Your task to perform on an android device: Go to Android settings Image 0: 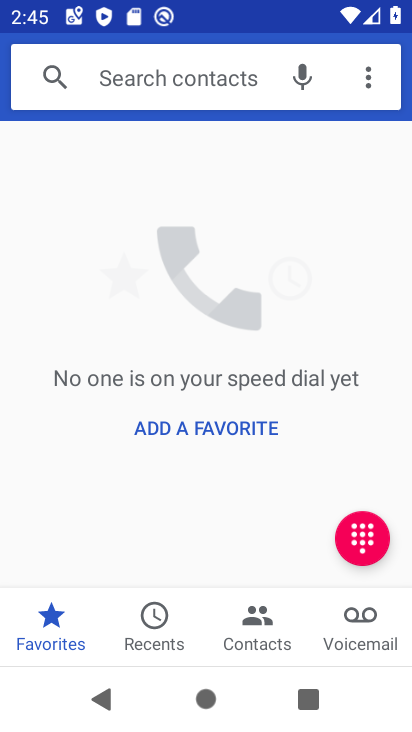
Step 0: press home button
Your task to perform on an android device: Go to Android settings Image 1: 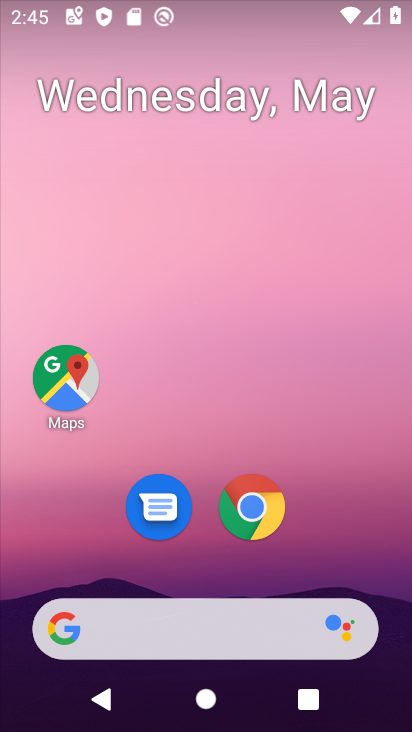
Step 1: drag from (187, 553) to (52, 54)
Your task to perform on an android device: Go to Android settings Image 2: 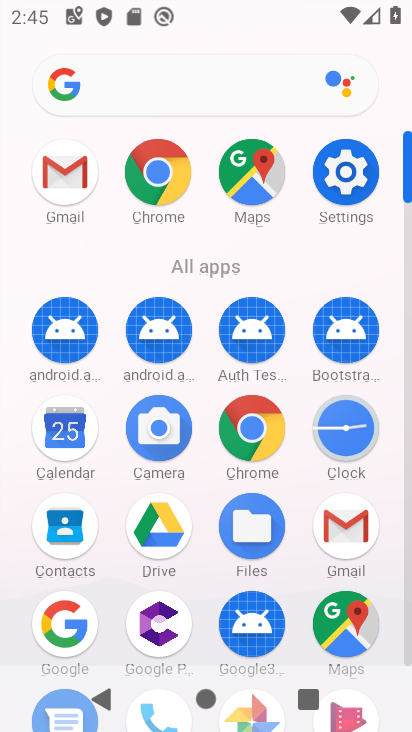
Step 2: click (347, 201)
Your task to perform on an android device: Go to Android settings Image 3: 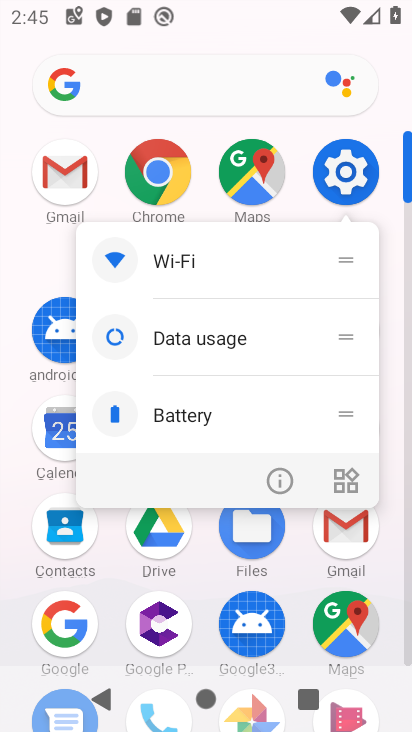
Step 3: click (349, 174)
Your task to perform on an android device: Go to Android settings Image 4: 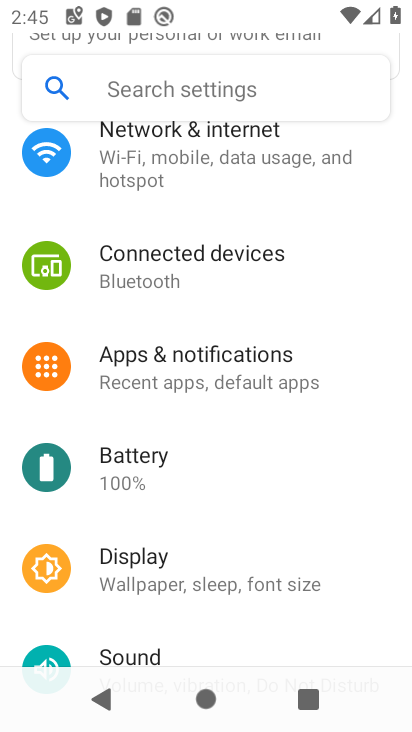
Step 4: drag from (245, 549) to (256, 253)
Your task to perform on an android device: Go to Android settings Image 5: 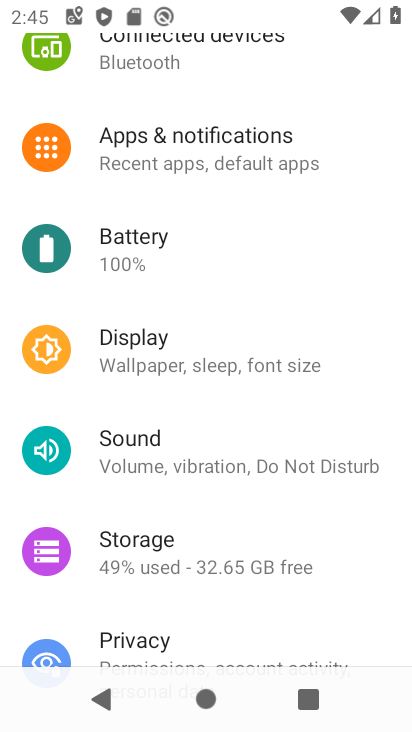
Step 5: drag from (221, 572) to (235, 277)
Your task to perform on an android device: Go to Android settings Image 6: 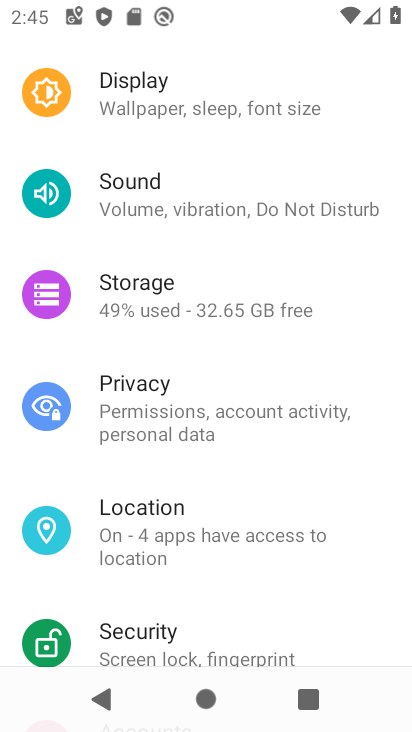
Step 6: drag from (211, 593) to (219, 229)
Your task to perform on an android device: Go to Android settings Image 7: 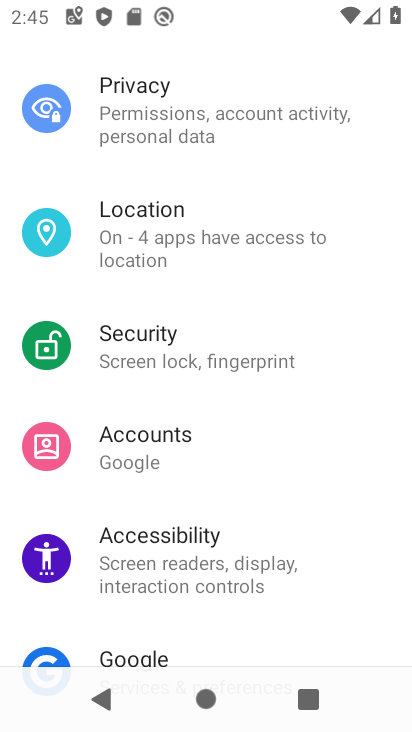
Step 7: drag from (185, 482) to (198, 276)
Your task to perform on an android device: Go to Android settings Image 8: 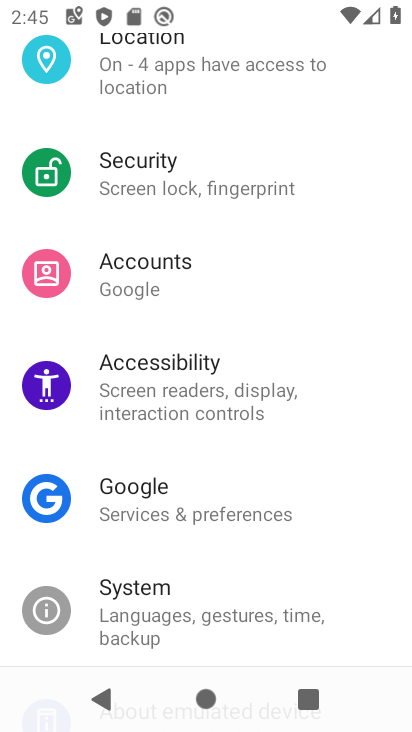
Step 8: drag from (191, 609) to (231, 170)
Your task to perform on an android device: Go to Android settings Image 9: 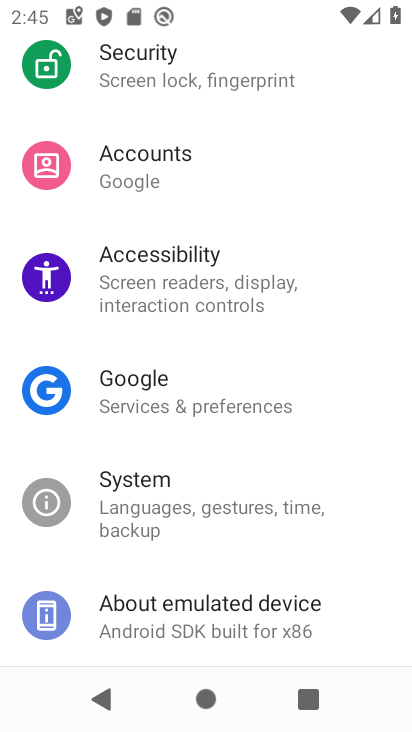
Step 9: drag from (217, 592) to (233, 249)
Your task to perform on an android device: Go to Android settings Image 10: 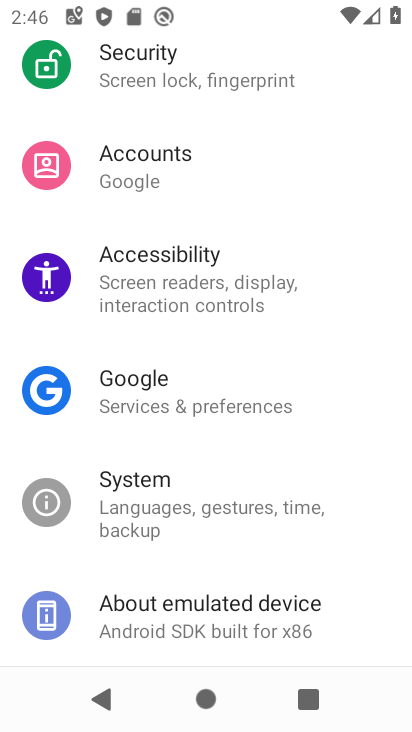
Step 10: click (203, 605)
Your task to perform on an android device: Go to Android settings Image 11: 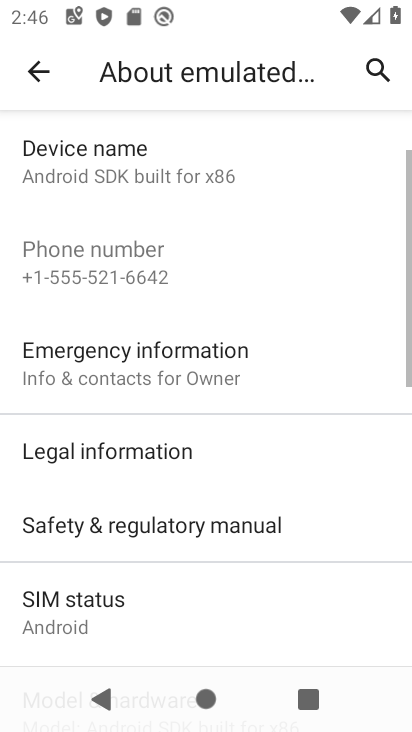
Step 11: drag from (131, 491) to (152, 162)
Your task to perform on an android device: Go to Android settings Image 12: 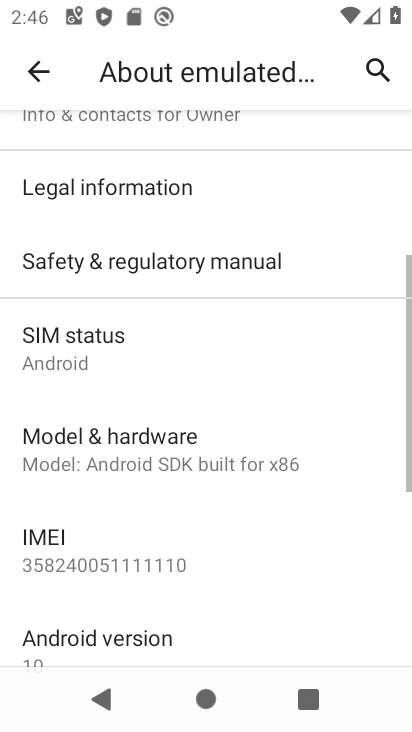
Step 12: drag from (113, 561) to (153, 248)
Your task to perform on an android device: Go to Android settings Image 13: 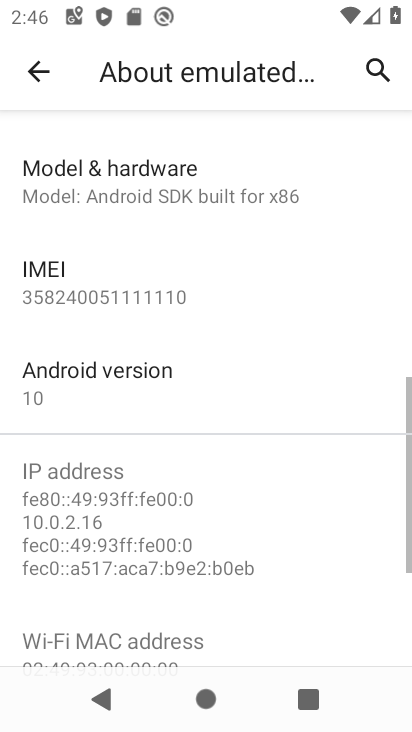
Step 13: click (94, 382)
Your task to perform on an android device: Go to Android settings Image 14: 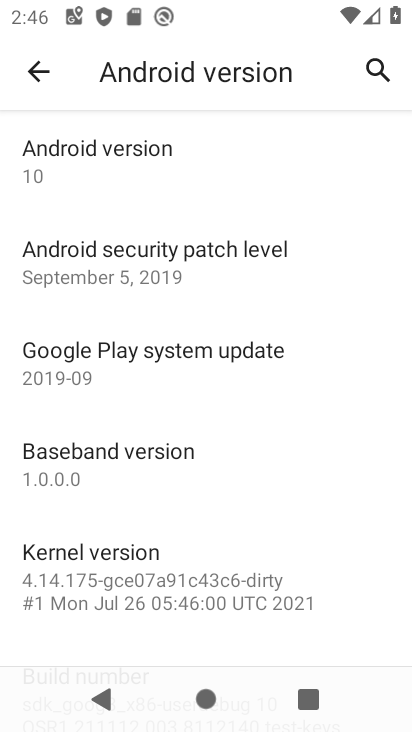
Step 14: task complete